Your task to perform on an android device: Do I have any events today? Image 0: 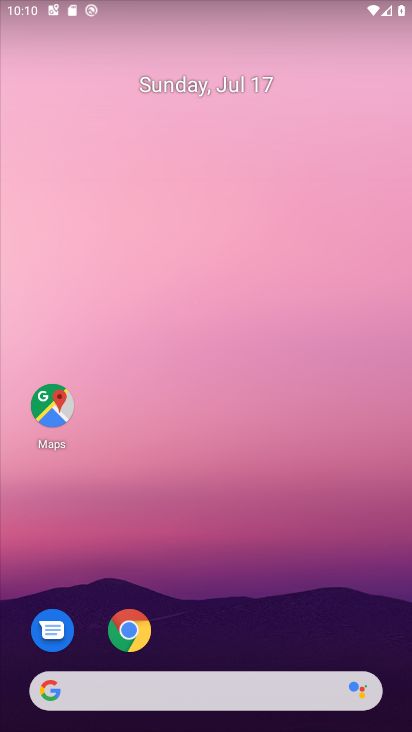
Step 0: drag from (264, 606) to (305, 29)
Your task to perform on an android device: Do I have any events today? Image 1: 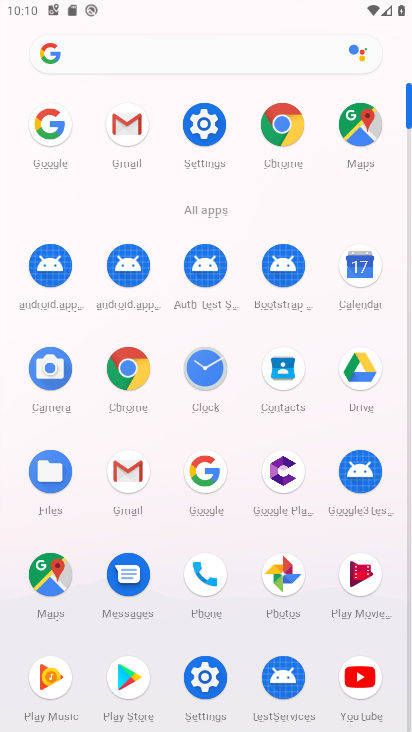
Step 1: click (365, 265)
Your task to perform on an android device: Do I have any events today? Image 2: 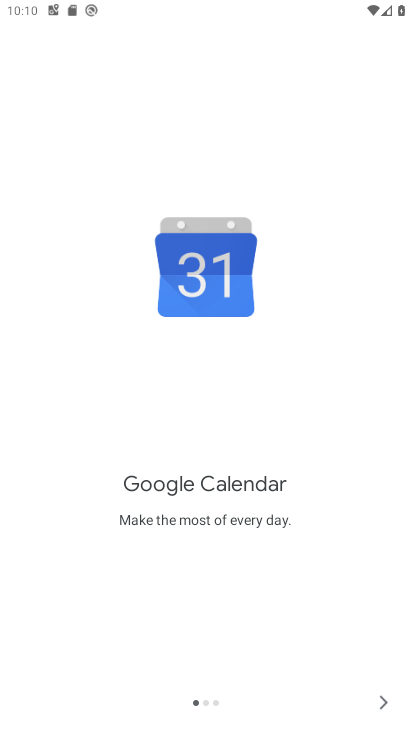
Step 2: click (388, 702)
Your task to perform on an android device: Do I have any events today? Image 3: 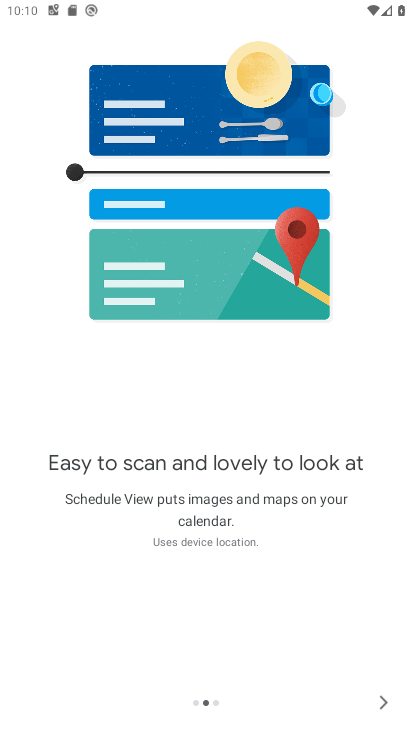
Step 3: click (383, 702)
Your task to perform on an android device: Do I have any events today? Image 4: 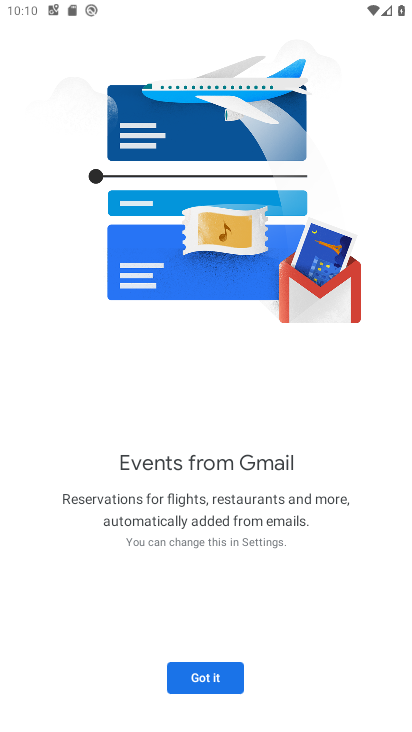
Step 4: click (224, 679)
Your task to perform on an android device: Do I have any events today? Image 5: 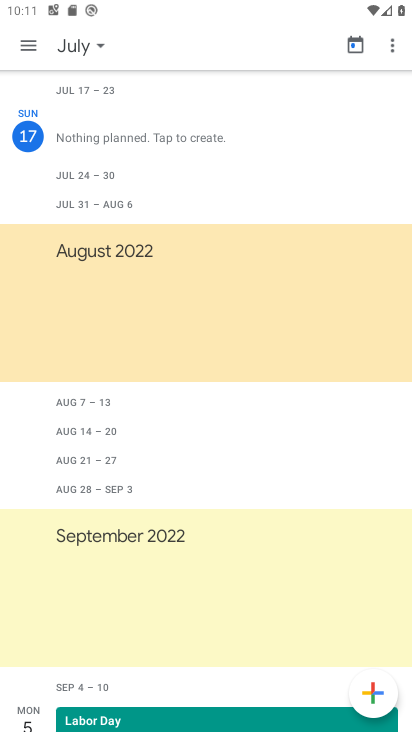
Step 5: task complete